Your task to perform on an android device: toggle data saver in the chrome app Image 0: 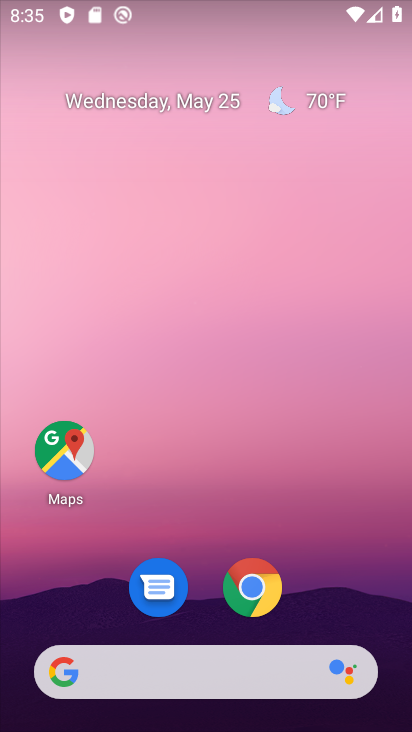
Step 0: drag from (208, 634) to (259, 89)
Your task to perform on an android device: toggle data saver in the chrome app Image 1: 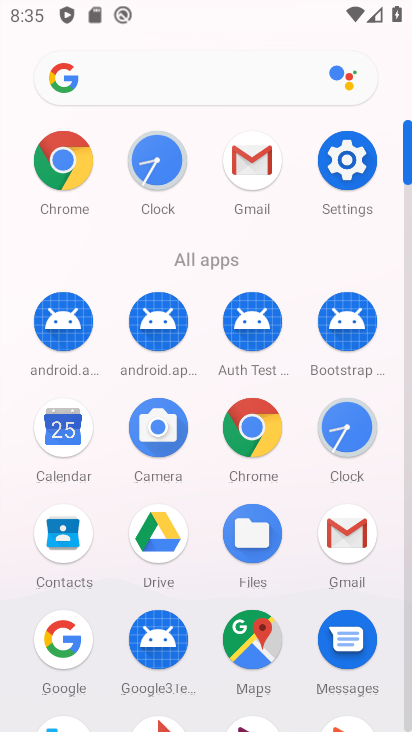
Step 1: click (259, 427)
Your task to perform on an android device: toggle data saver in the chrome app Image 2: 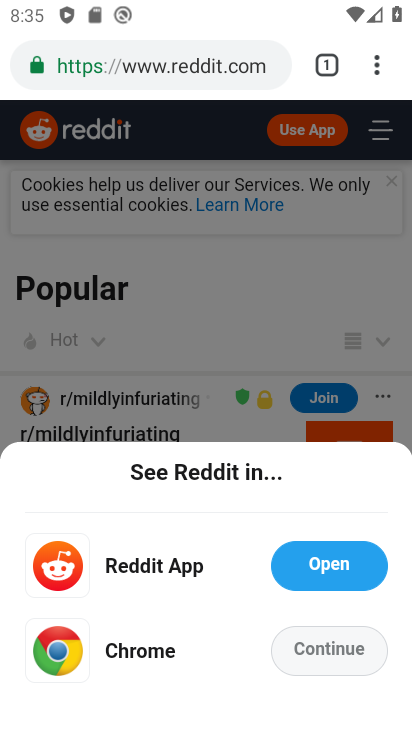
Step 2: click (382, 61)
Your task to perform on an android device: toggle data saver in the chrome app Image 3: 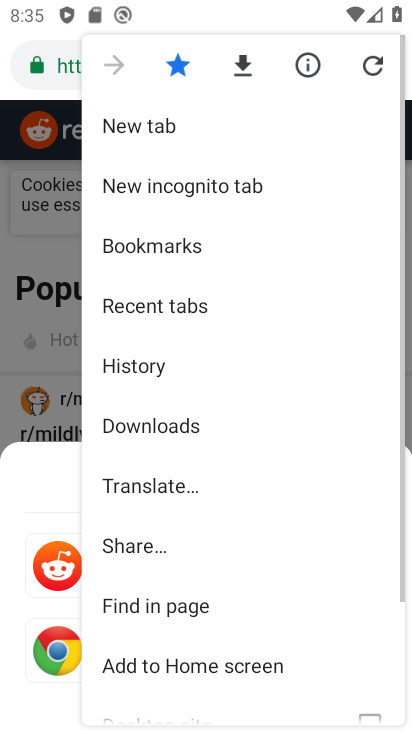
Step 3: drag from (214, 623) to (247, 155)
Your task to perform on an android device: toggle data saver in the chrome app Image 4: 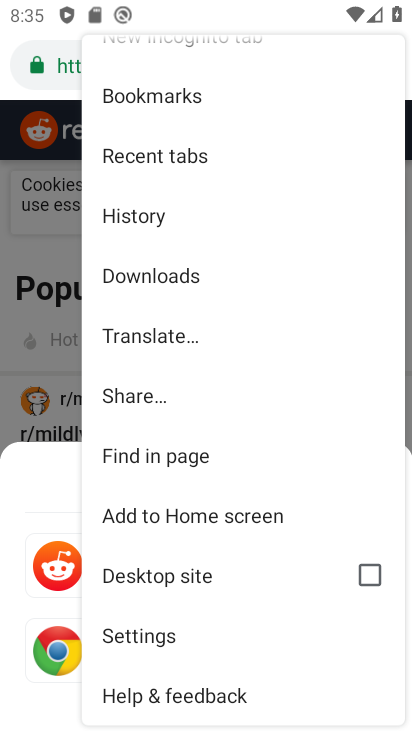
Step 4: click (153, 635)
Your task to perform on an android device: toggle data saver in the chrome app Image 5: 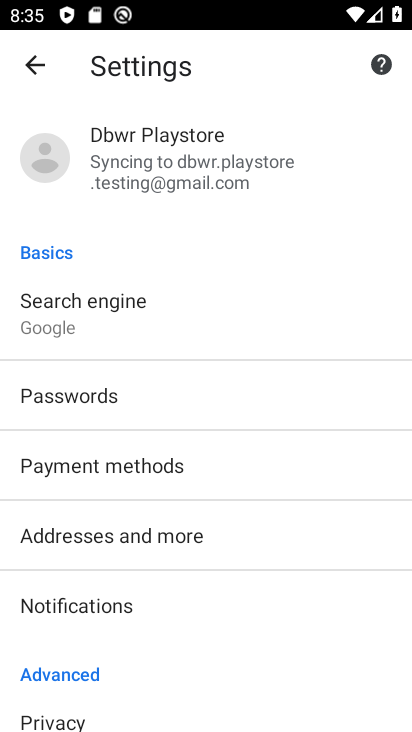
Step 5: drag from (165, 616) to (211, 270)
Your task to perform on an android device: toggle data saver in the chrome app Image 6: 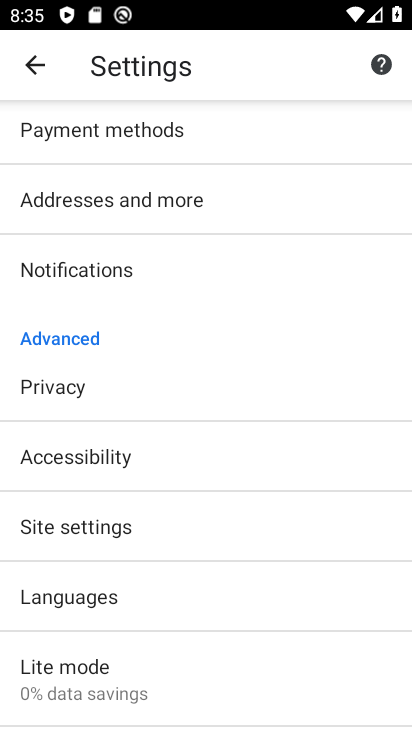
Step 6: click (98, 683)
Your task to perform on an android device: toggle data saver in the chrome app Image 7: 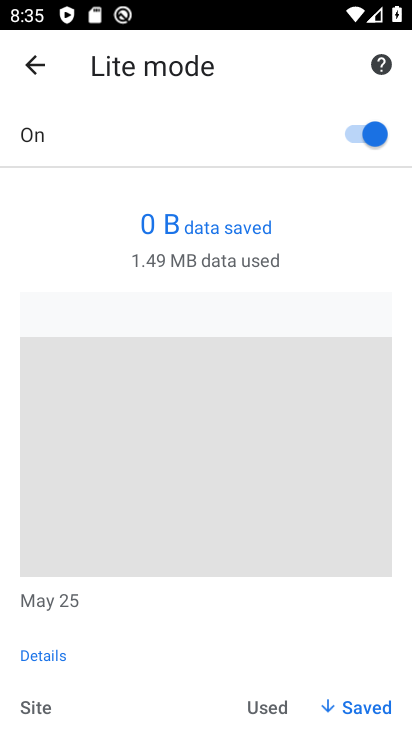
Step 7: click (333, 133)
Your task to perform on an android device: toggle data saver in the chrome app Image 8: 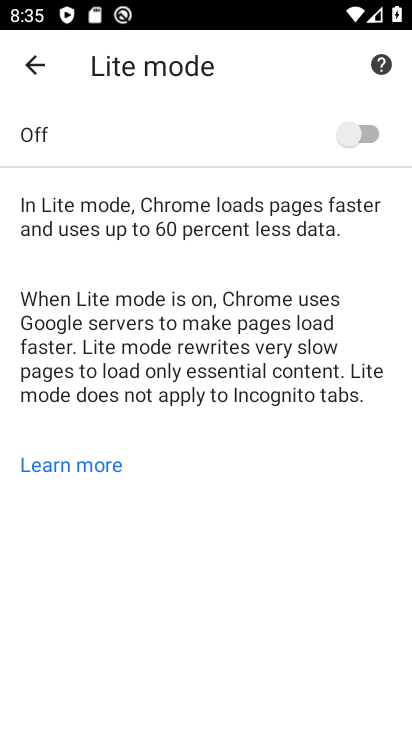
Step 8: task complete